Your task to perform on an android device: Open ESPN.com Image 0: 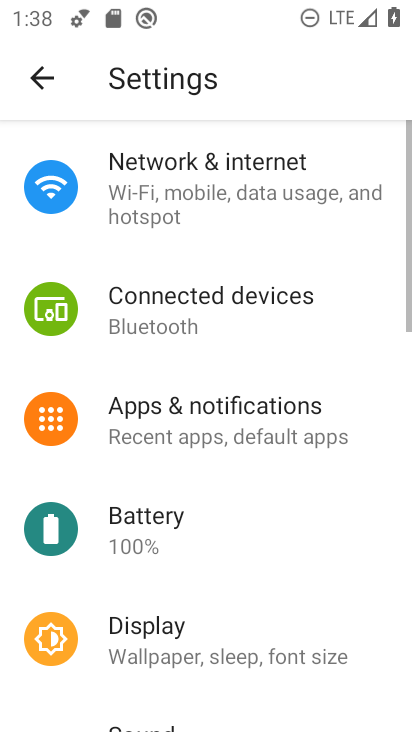
Step 0: press home button
Your task to perform on an android device: Open ESPN.com Image 1: 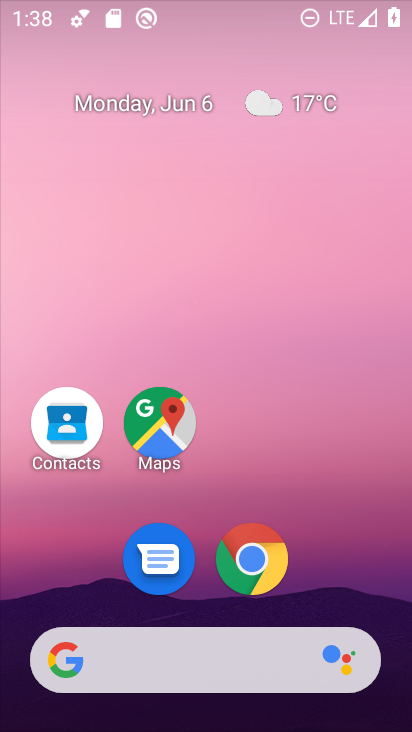
Step 1: drag from (248, 696) to (250, 80)
Your task to perform on an android device: Open ESPN.com Image 2: 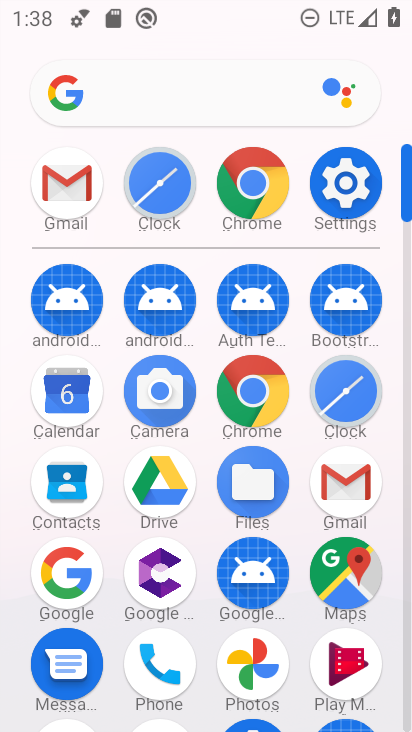
Step 2: click (273, 208)
Your task to perform on an android device: Open ESPN.com Image 3: 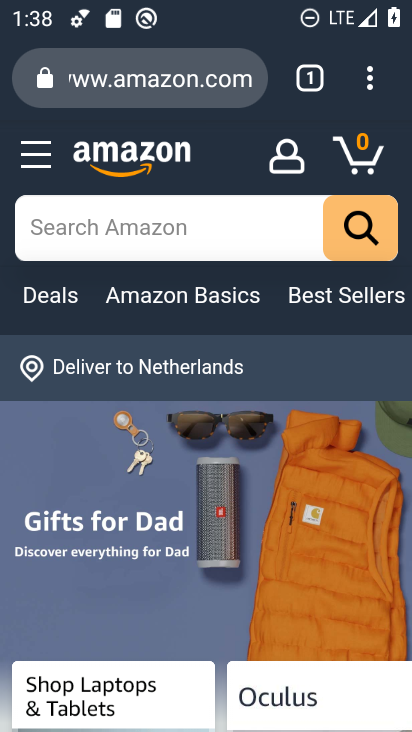
Step 3: click (232, 68)
Your task to perform on an android device: Open ESPN.com Image 4: 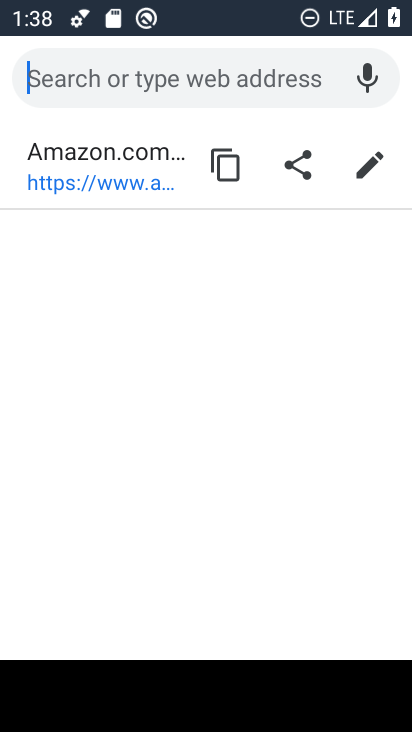
Step 4: type "espn"
Your task to perform on an android device: Open ESPN.com Image 5: 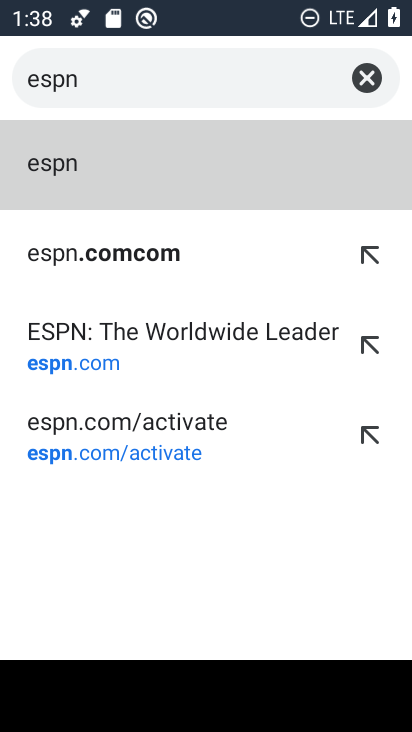
Step 5: click (127, 350)
Your task to perform on an android device: Open ESPN.com Image 6: 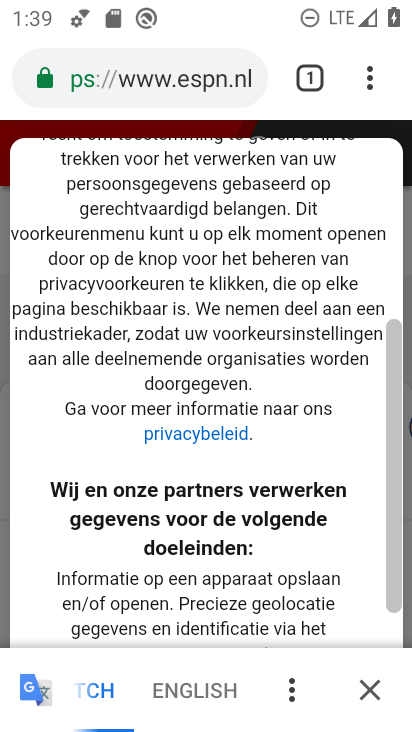
Step 6: task complete